Your task to perform on an android device: turn off improve location accuracy Image 0: 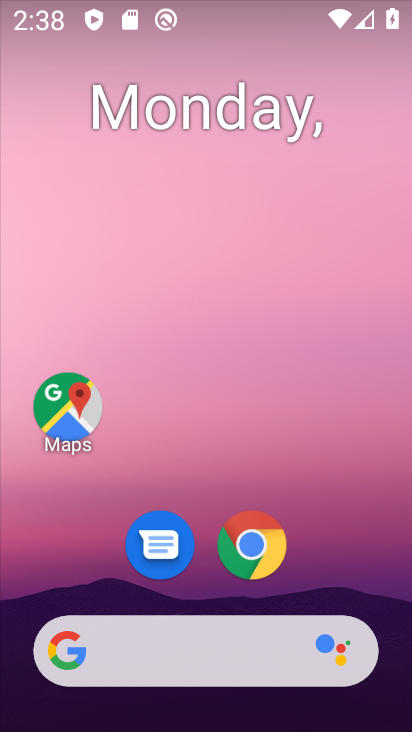
Step 0: drag from (187, 568) to (268, 102)
Your task to perform on an android device: turn off improve location accuracy Image 1: 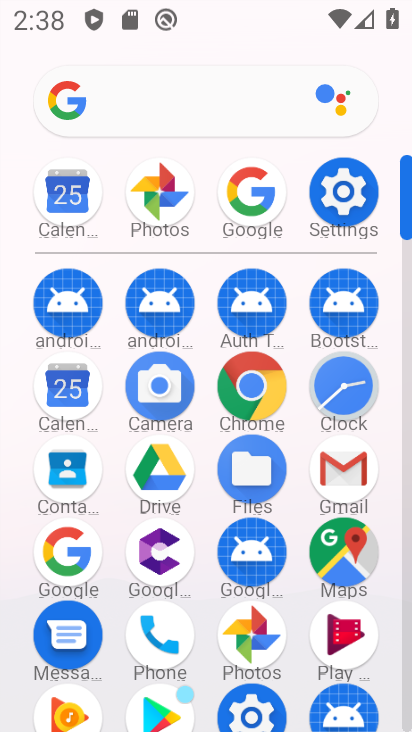
Step 1: click (344, 206)
Your task to perform on an android device: turn off improve location accuracy Image 2: 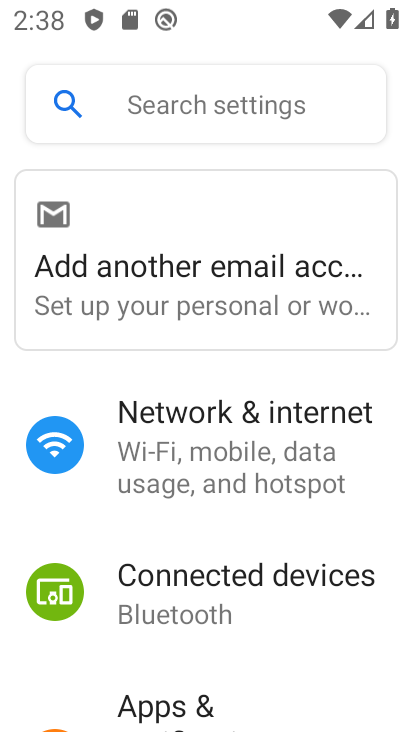
Step 2: drag from (232, 656) to (306, 169)
Your task to perform on an android device: turn off improve location accuracy Image 3: 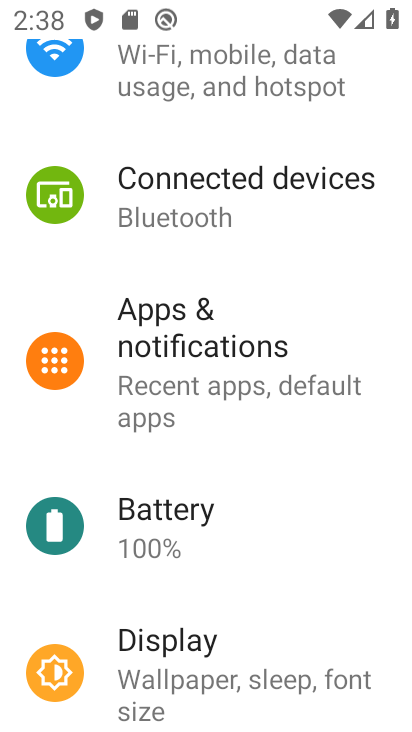
Step 3: drag from (174, 651) to (232, 125)
Your task to perform on an android device: turn off improve location accuracy Image 4: 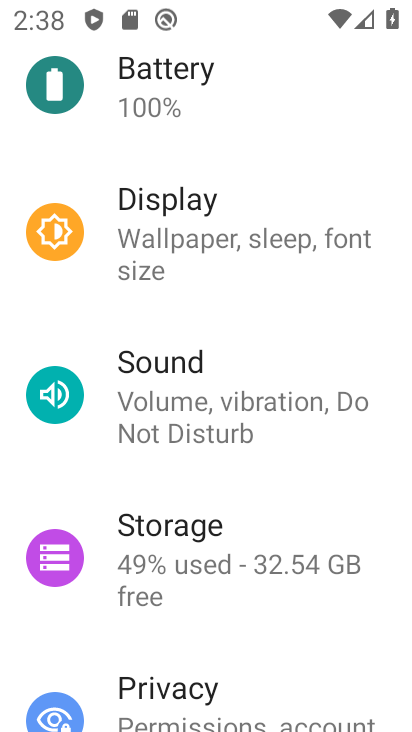
Step 4: drag from (212, 562) to (250, 301)
Your task to perform on an android device: turn off improve location accuracy Image 5: 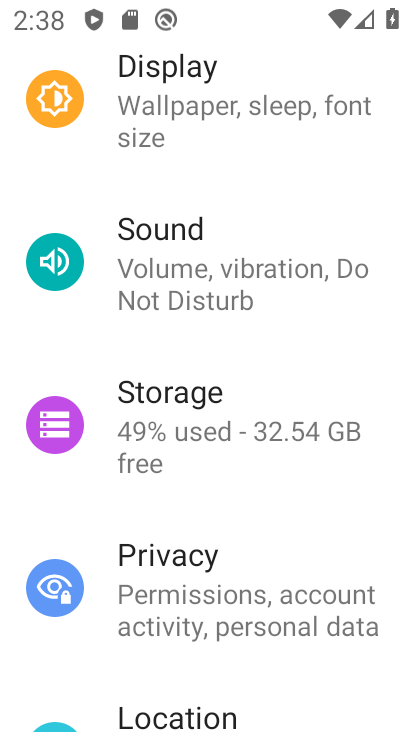
Step 5: drag from (165, 661) to (223, 332)
Your task to perform on an android device: turn off improve location accuracy Image 6: 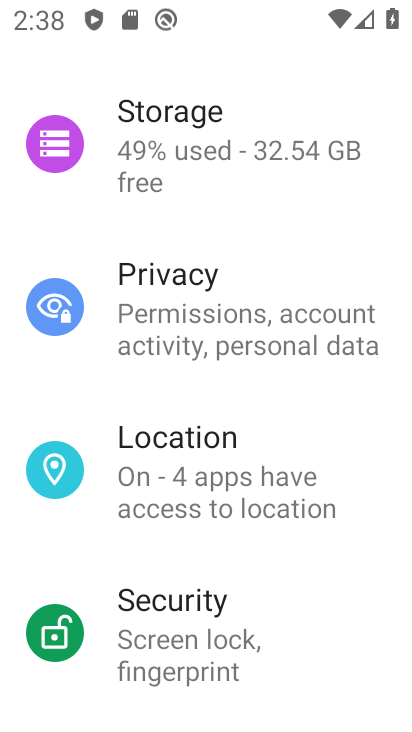
Step 6: click (210, 448)
Your task to perform on an android device: turn off improve location accuracy Image 7: 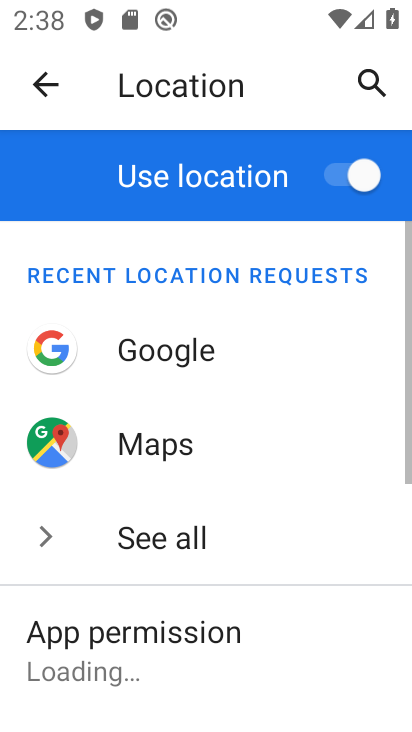
Step 7: drag from (162, 669) to (279, 148)
Your task to perform on an android device: turn off improve location accuracy Image 8: 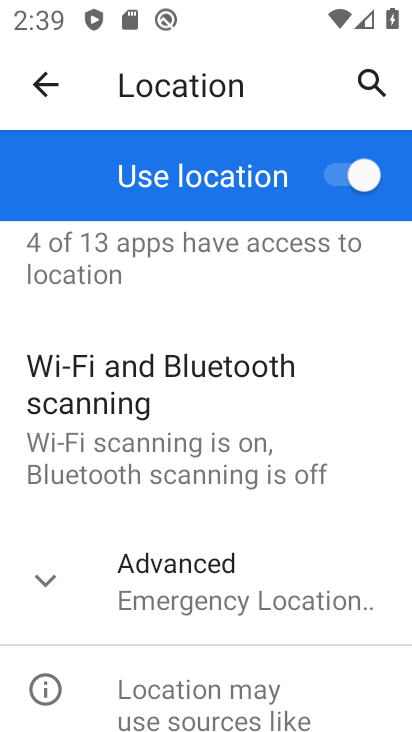
Step 8: click (207, 578)
Your task to perform on an android device: turn off improve location accuracy Image 9: 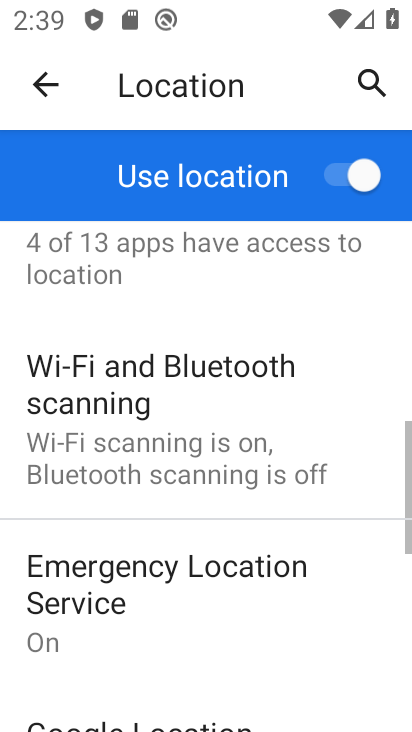
Step 9: drag from (236, 537) to (273, 159)
Your task to perform on an android device: turn off improve location accuracy Image 10: 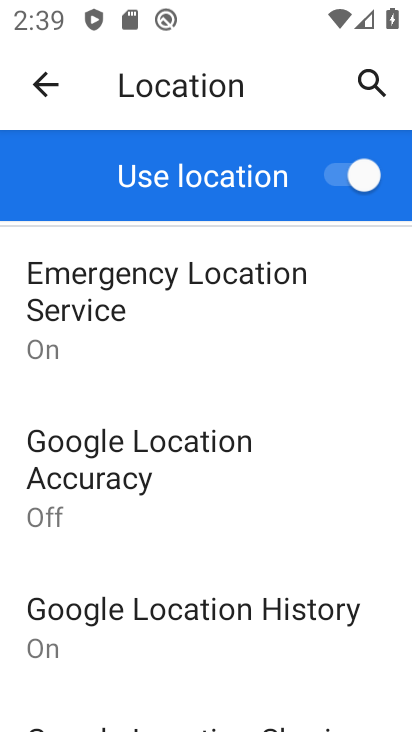
Step 10: click (126, 482)
Your task to perform on an android device: turn off improve location accuracy Image 11: 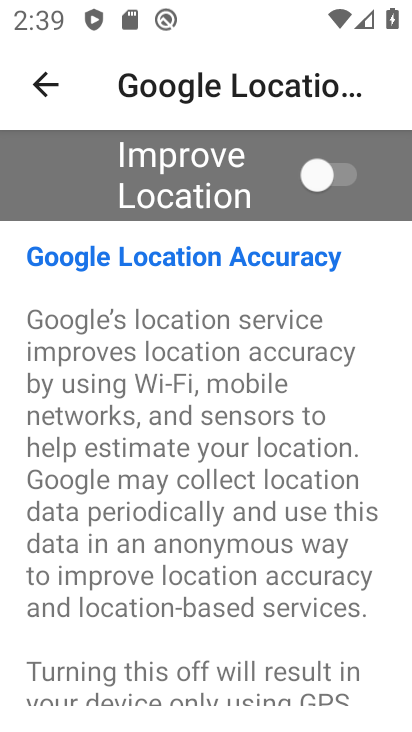
Step 11: task complete